Your task to perform on an android device: What's on my calendar today? Image 0: 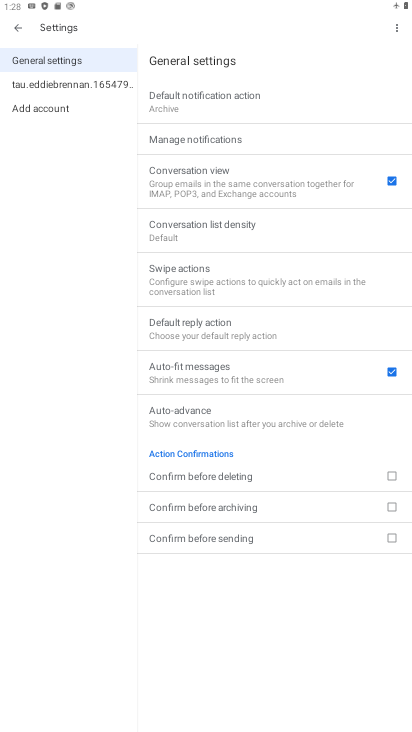
Step 0: press home button
Your task to perform on an android device: What's on my calendar today? Image 1: 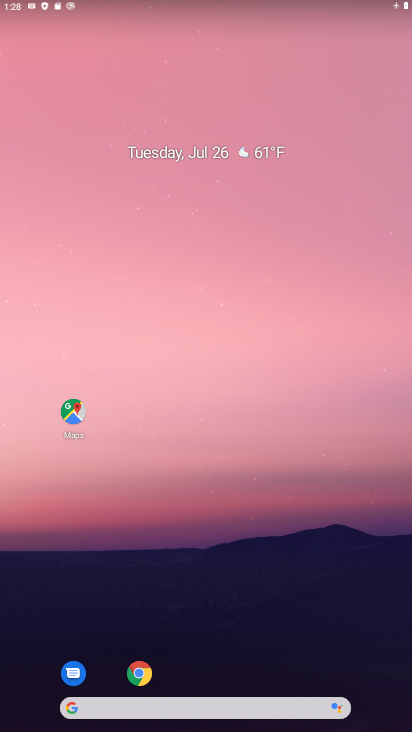
Step 1: drag from (206, 651) to (276, 197)
Your task to perform on an android device: What's on my calendar today? Image 2: 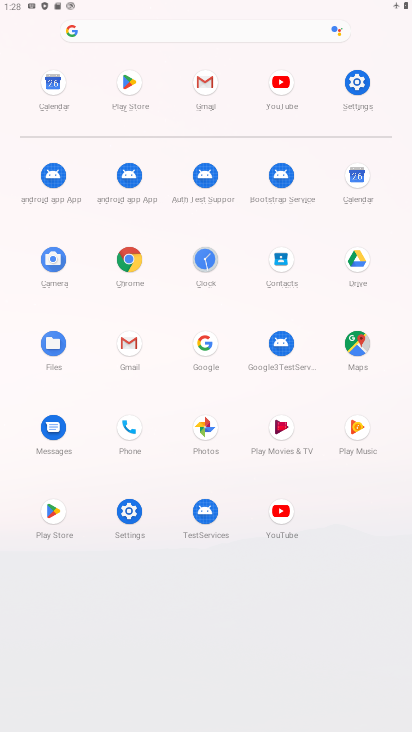
Step 2: click (357, 173)
Your task to perform on an android device: What's on my calendar today? Image 3: 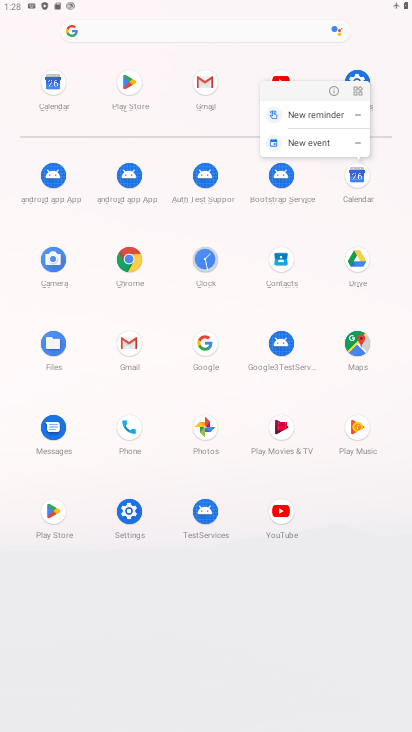
Step 3: click (332, 87)
Your task to perform on an android device: What's on my calendar today? Image 4: 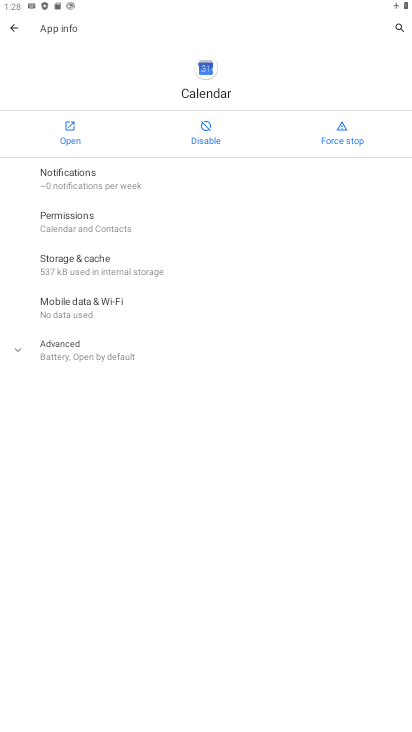
Step 4: click (65, 134)
Your task to perform on an android device: What's on my calendar today? Image 5: 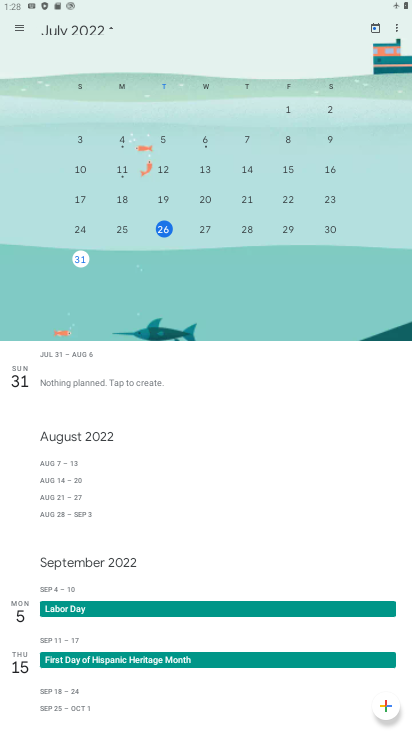
Step 5: click (376, 28)
Your task to perform on an android device: What's on my calendar today? Image 6: 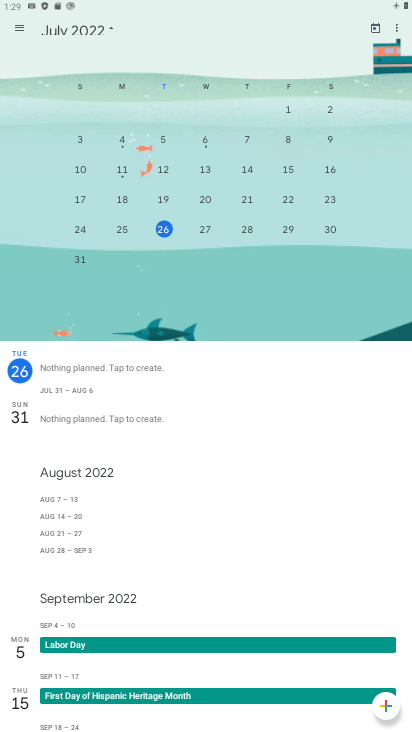
Step 6: click (166, 228)
Your task to perform on an android device: What's on my calendar today? Image 7: 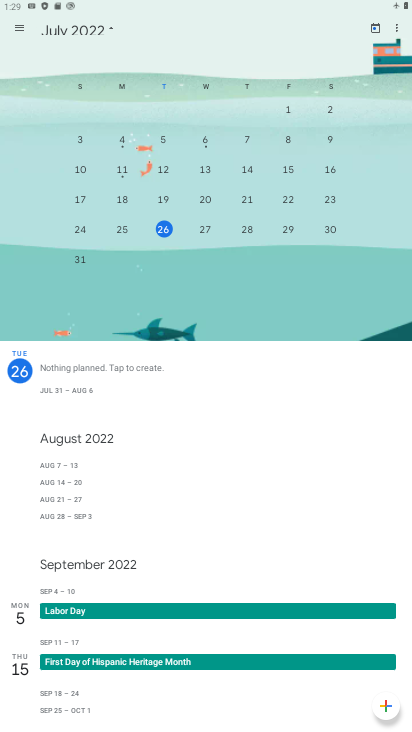
Step 7: task complete